Your task to perform on an android device: manage bookmarks in the chrome app Image 0: 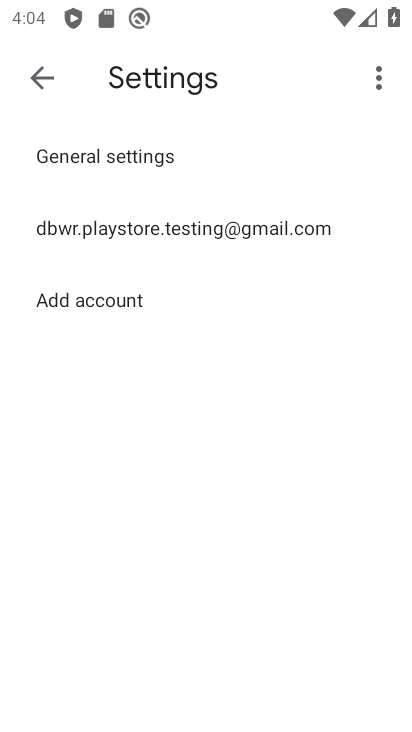
Step 0: press home button
Your task to perform on an android device: manage bookmarks in the chrome app Image 1: 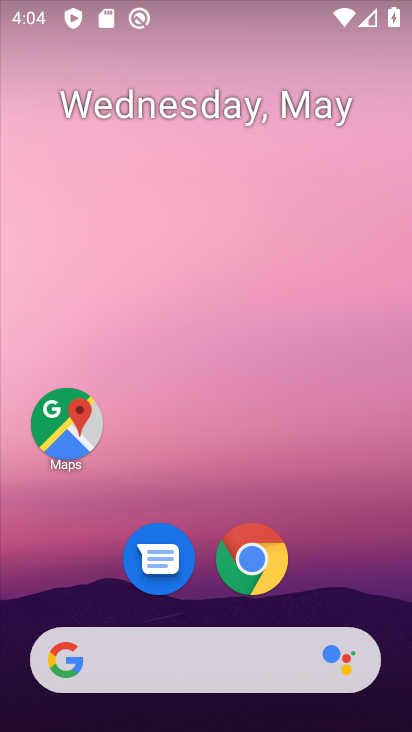
Step 1: click (258, 554)
Your task to perform on an android device: manage bookmarks in the chrome app Image 2: 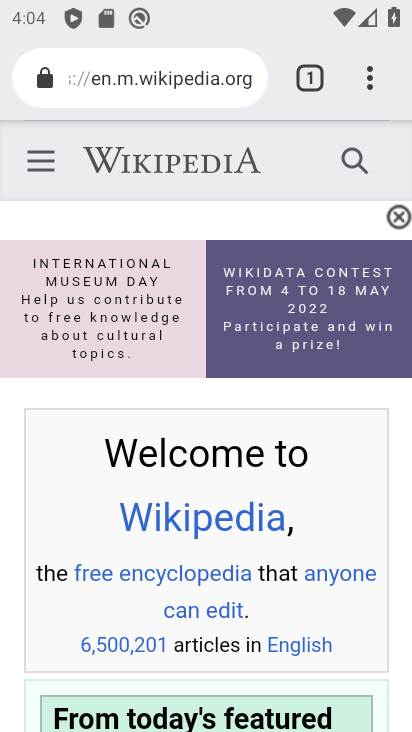
Step 2: click (379, 79)
Your task to perform on an android device: manage bookmarks in the chrome app Image 3: 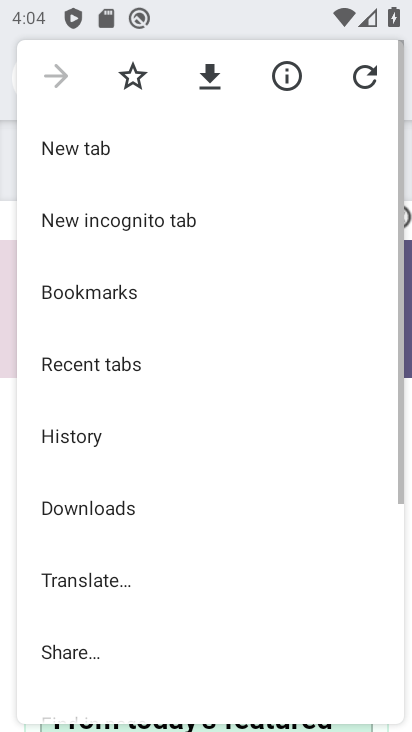
Step 3: click (120, 294)
Your task to perform on an android device: manage bookmarks in the chrome app Image 4: 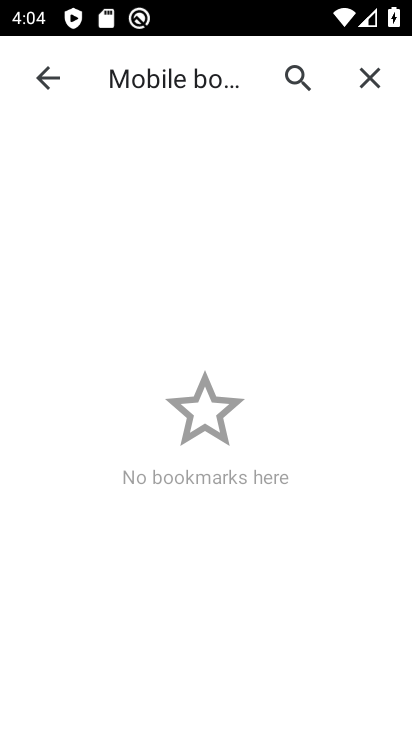
Step 4: task complete